Your task to perform on an android device: Do I have any events today? Image 0: 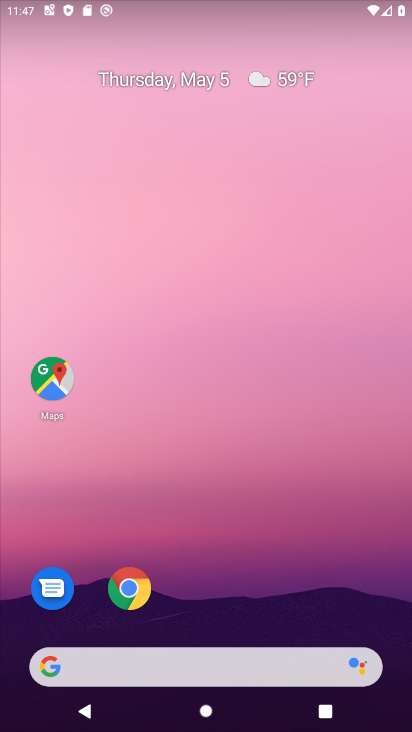
Step 0: drag from (278, 498) to (310, 0)
Your task to perform on an android device: Do I have any events today? Image 1: 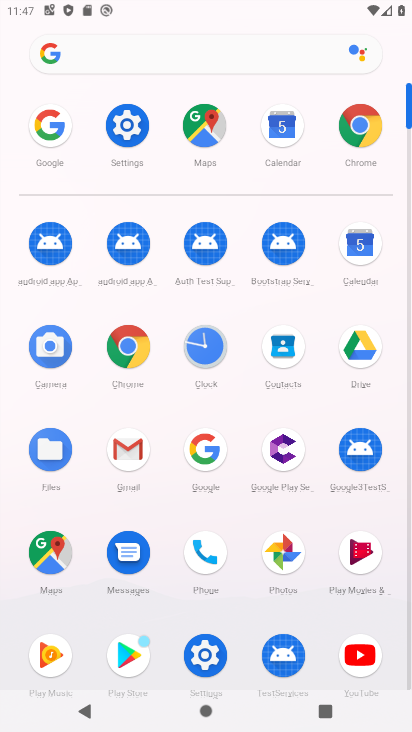
Step 1: click (291, 124)
Your task to perform on an android device: Do I have any events today? Image 2: 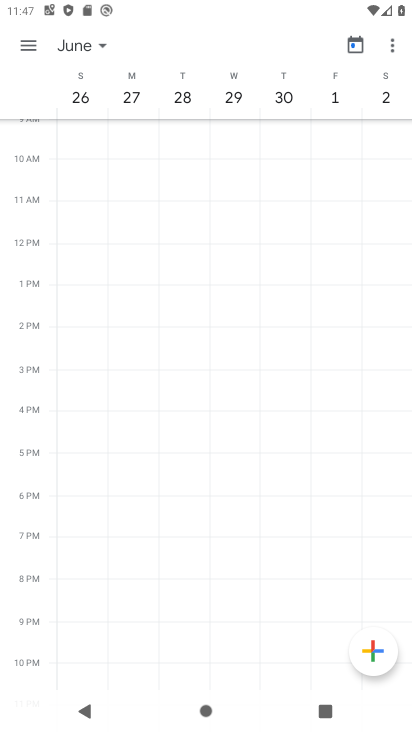
Step 2: click (22, 43)
Your task to perform on an android device: Do I have any events today? Image 3: 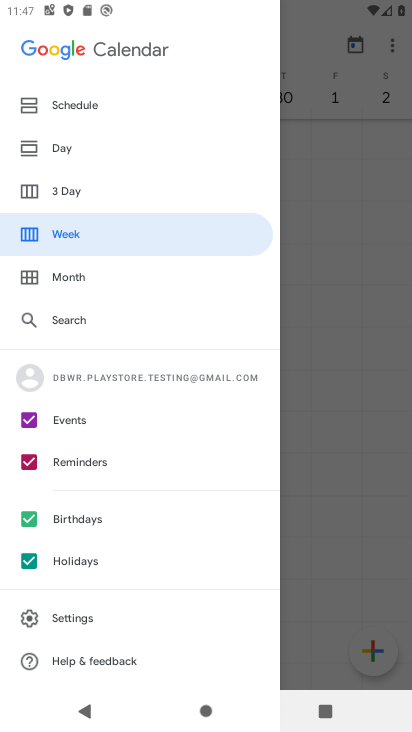
Step 3: click (67, 90)
Your task to perform on an android device: Do I have any events today? Image 4: 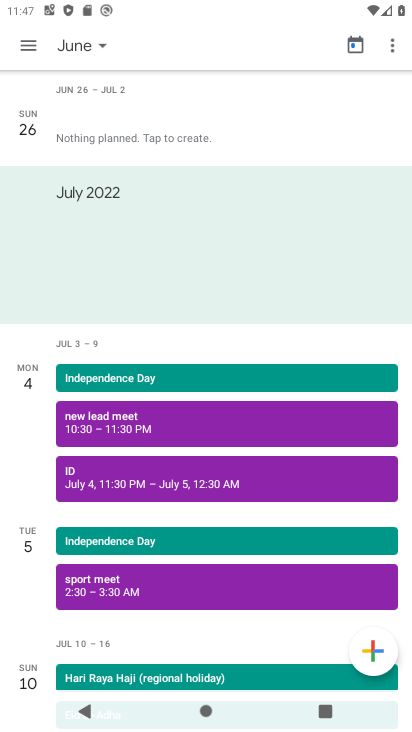
Step 4: click (30, 44)
Your task to perform on an android device: Do I have any events today? Image 5: 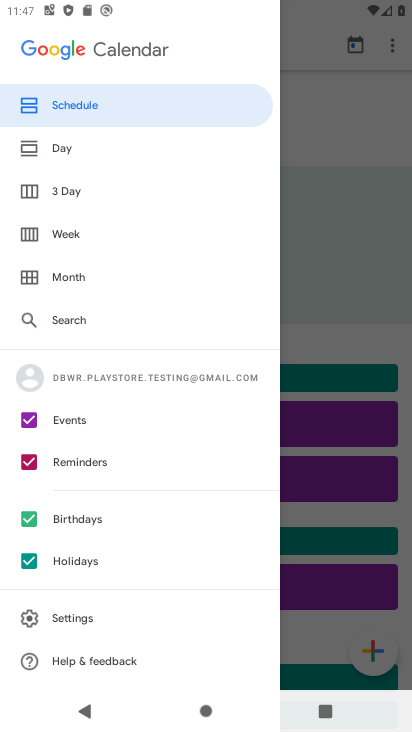
Step 5: click (59, 265)
Your task to perform on an android device: Do I have any events today? Image 6: 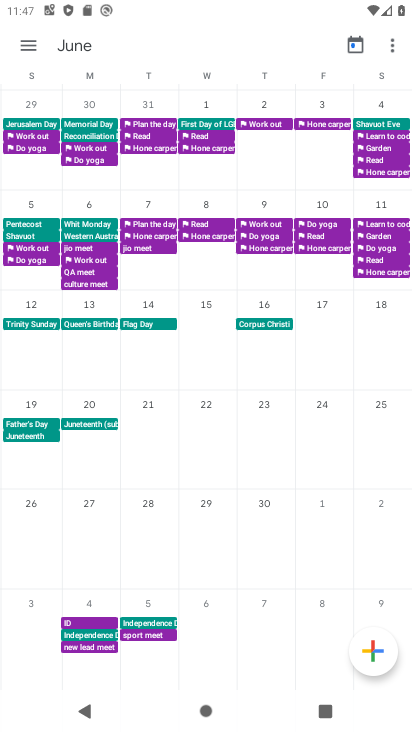
Step 6: drag from (26, 366) to (407, 382)
Your task to perform on an android device: Do I have any events today? Image 7: 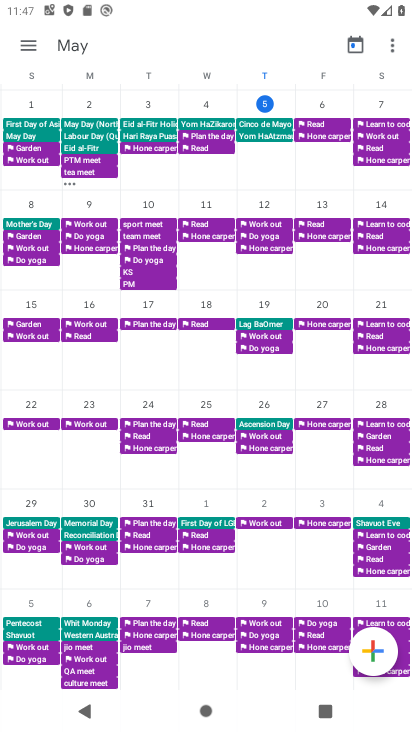
Step 7: click (267, 122)
Your task to perform on an android device: Do I have any events today? Image 8: 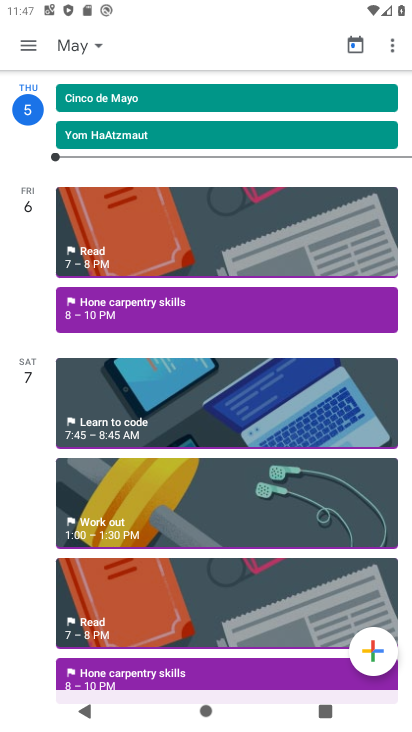
Step 8: task complete